Your task to perform on an android device: Open Youtube and go to the subscriptions tab Image 0: 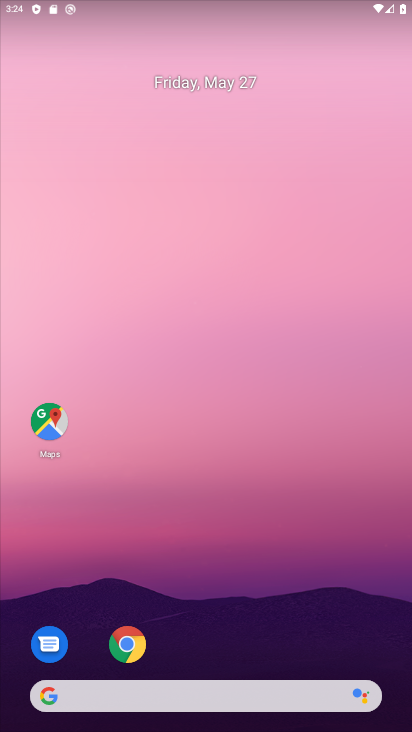
Step 0: drag from (296, 605) to (180, 0)
Your task to perform on an android device: Open Youtube and go to the subscriptions tab Image 1: 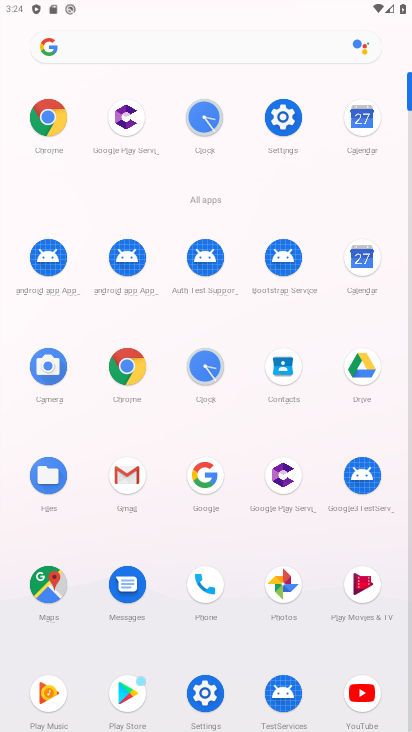
Step 1: click (369, 695)
Your task to perform on an android device: Open Youtube and go to the subscriptions tab Image 2: 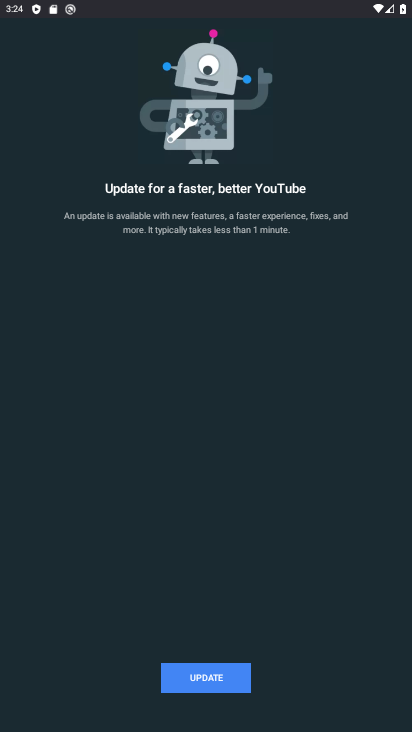
Step 2: click (226, 680)
Your task to perform on an android device: Open Youtube and go to the subscriptions tab Image 3: 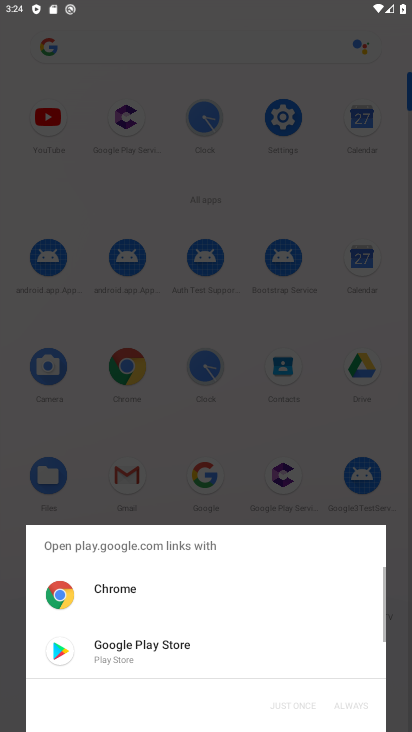
Step 3: click (156, 641)
Your task to perform on an android device: Open Youtube and go to the subscriptions tab Image 4: 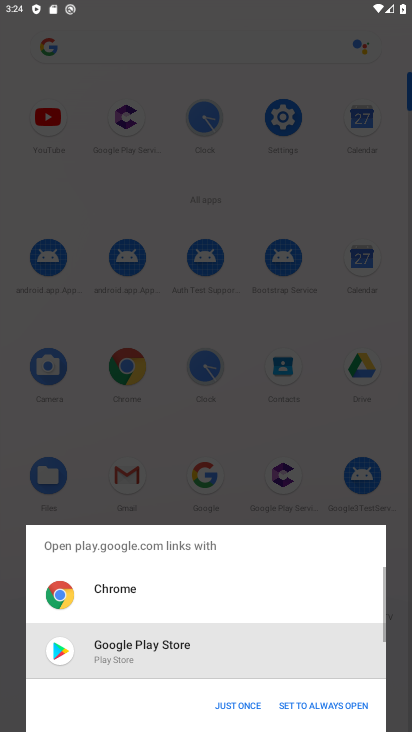
Step 4: click (211, 700)
Your task to perform on an android device: Open Youtube and go to the subscriptions tab Image 5: 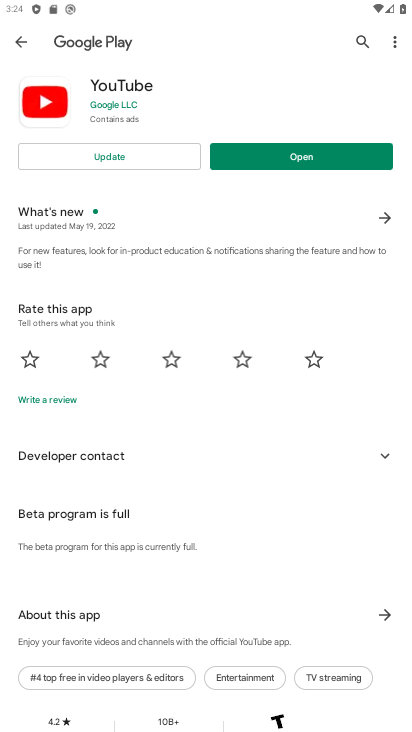
Step 5: click (146, 143)
Your task to perform on an android device: Open Youtube and go to the subscriptions tab Image 6: 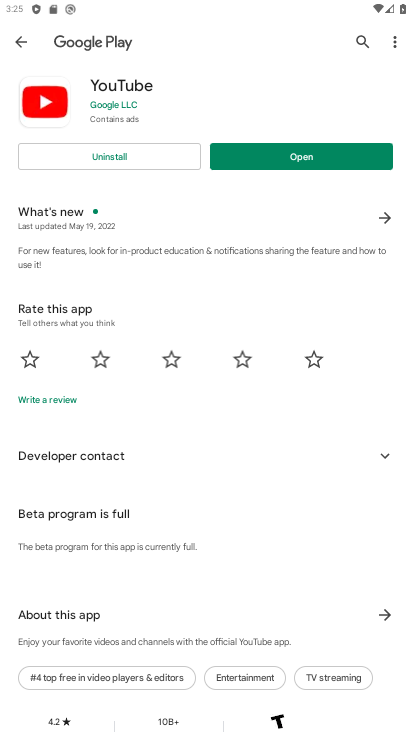
Step 6: click (329, 156)
Your task to perform on an android device: Open Youtube and go to the subscriptions tab Image 7: 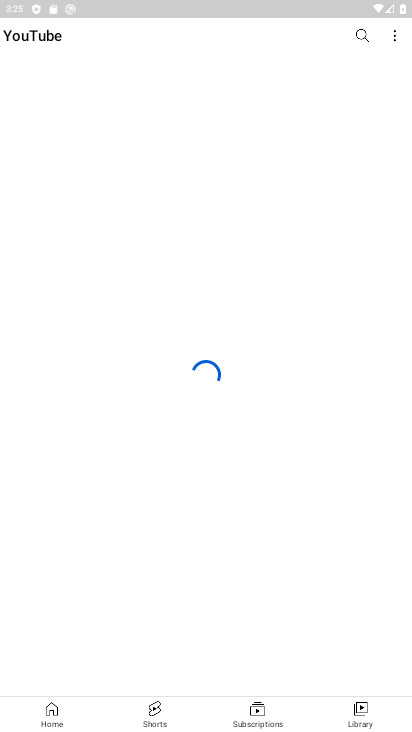
Step 7: click (262, 717)
Your task to perform on an android device: Open Youtube and go to the subscriptions tab Image 8: 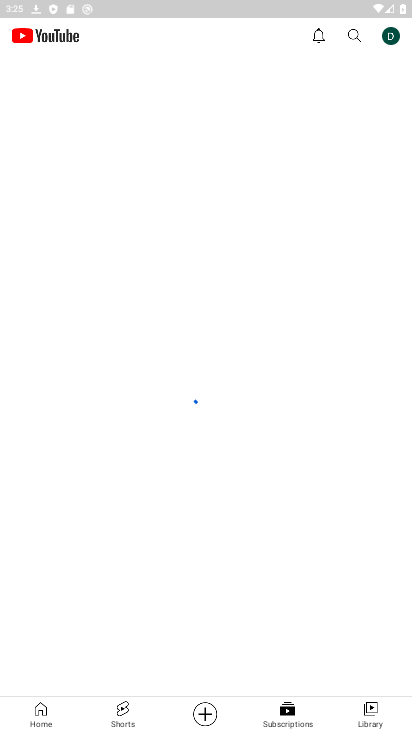
Step 8: task complete